Your task to perform on an android device: What's the weather today? Image 0: 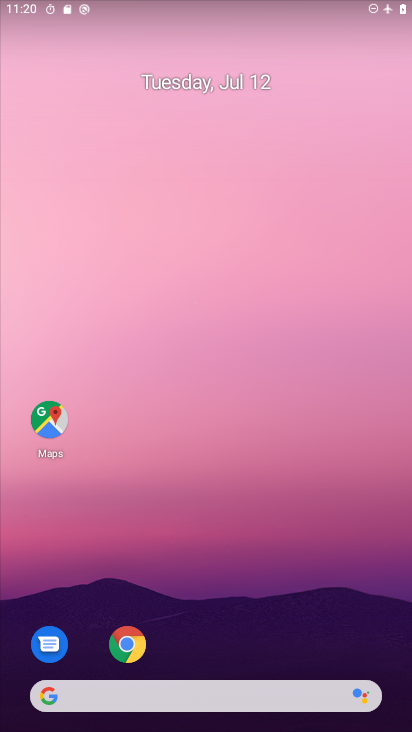
Step 0: drag from (180, 649) to (181, 174)
Your task to perform on an android device: What's the weather today? Image 1: 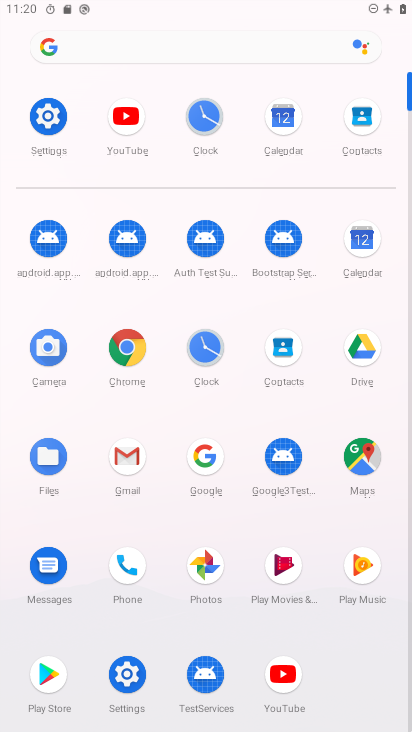
Step 1: click (208, 466)
Your task to perform on an android device: What's the weather today? Image 2: 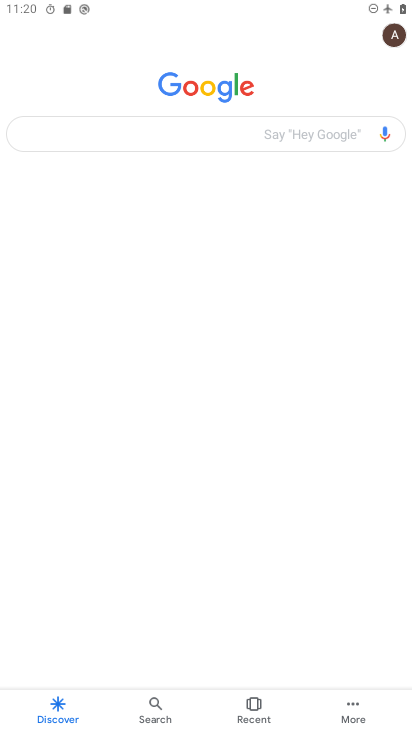
Step 2: click (152, 132)
Your task to perform on an android device: What's the weather today? Image 3: 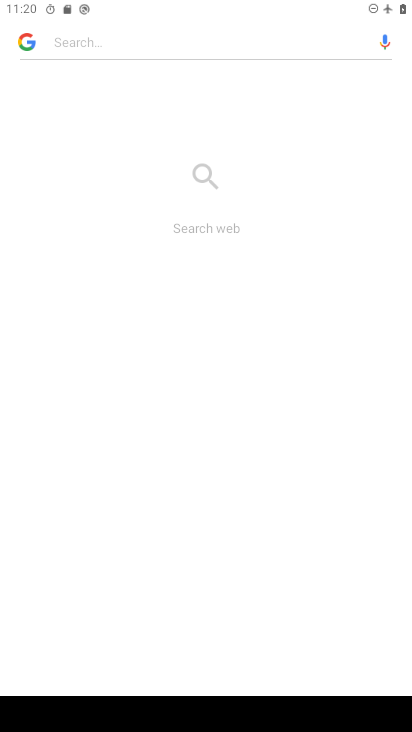
Step 3: type "weather today"
Your task to perform on an android device: What's the weather today? Image 4: 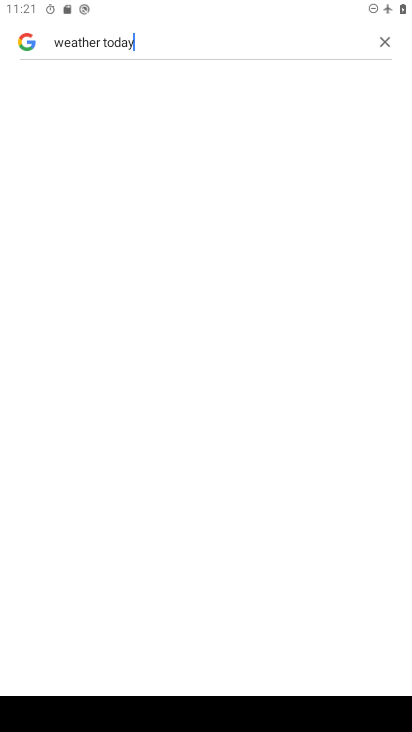
Step 4: task complete